Your task to perform on an android device: Open Youtube and go to "Your channel" Image 0: 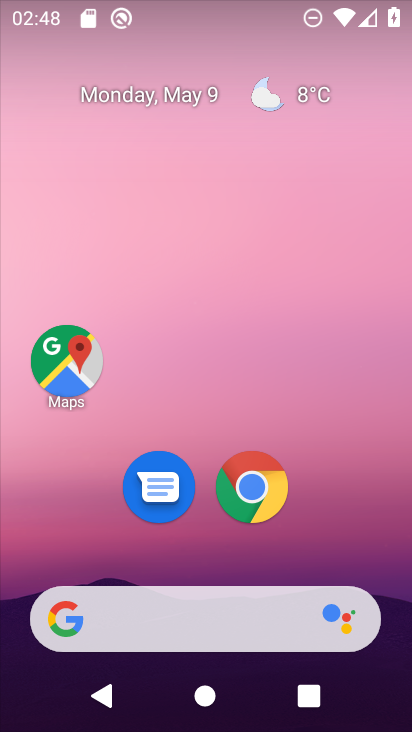
Step 0: drag from (353, 510) to (244, 15)
Your task to perform on an android device: Open Youtube and go to "Your channel" Image 1: 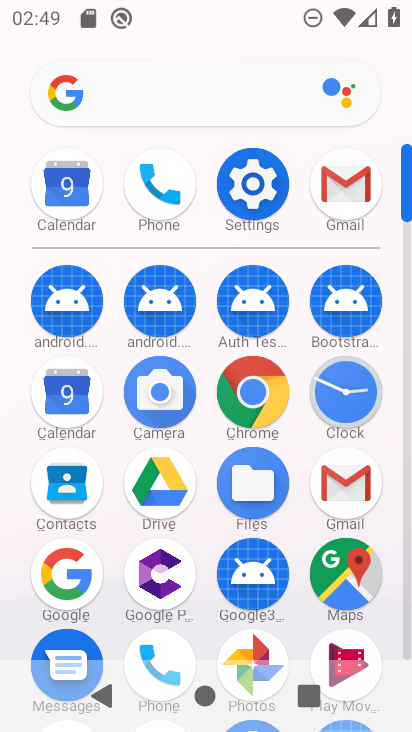
Step 1: drag from (197, 239) to (180, 73)
Your task to perform on an android device: Open Youtube and go to "Your channel" Image 2: 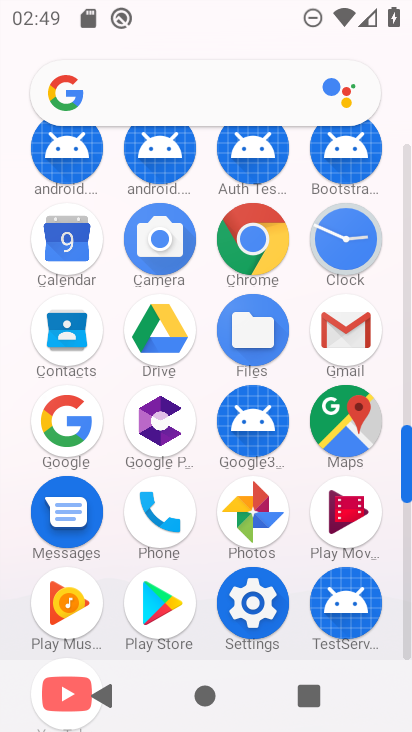
Step 2: click (56, 669)
Your task to perform on an android device: Open Youtube and go to "Your channel" Image 3: 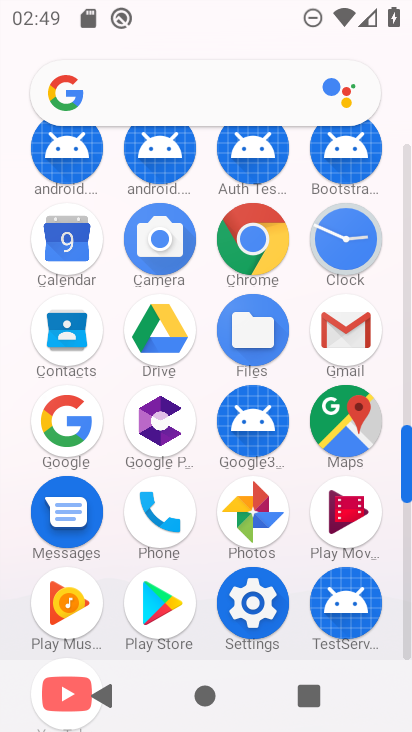
Step 3: click (71, 664)
Your task to perform on an android device: Open Youtube and go to "Your channel" Image 4: 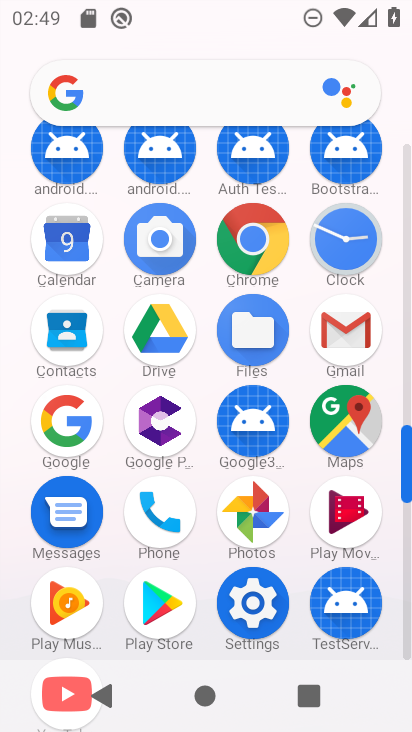
Step 4: drag from (207, 653) to (171, 318)
Your task to perform on an android device: Open Youtube and go to "Your channel" Image 5: 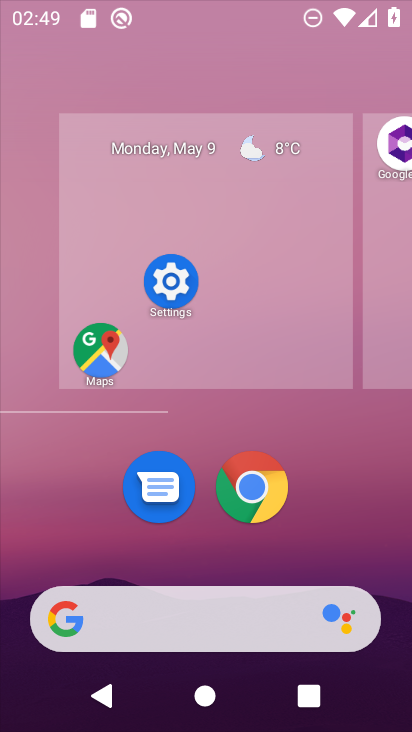
Step 5: click (171, 318)
Your task to perform on an android device: Open Youtube and go to "Your channel" Image 6: 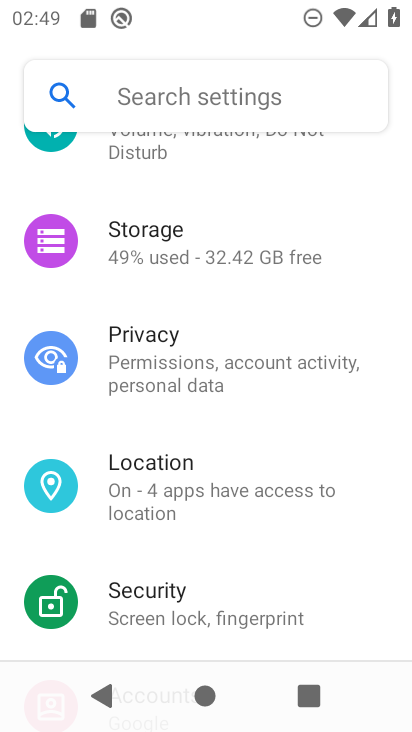
Step 6: drag from (256, 386) to (307, 40)
Your task to perform on an android device: Open Youtube and go to "Your channel" Image 7: 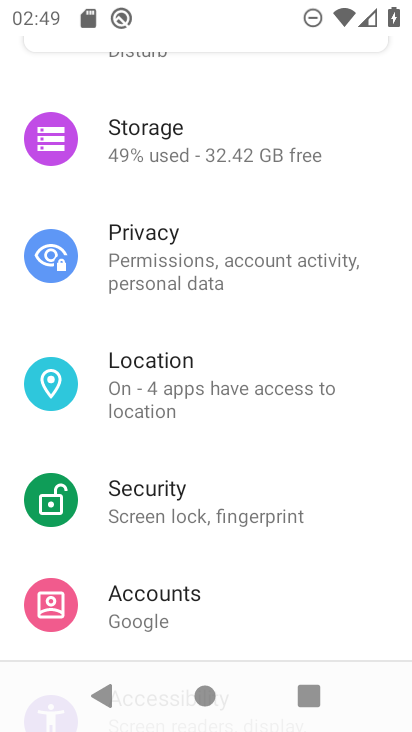
Step 7: press home button
Your task to perform on an android device: Open Youtube and go to "Your channel" Image 8: 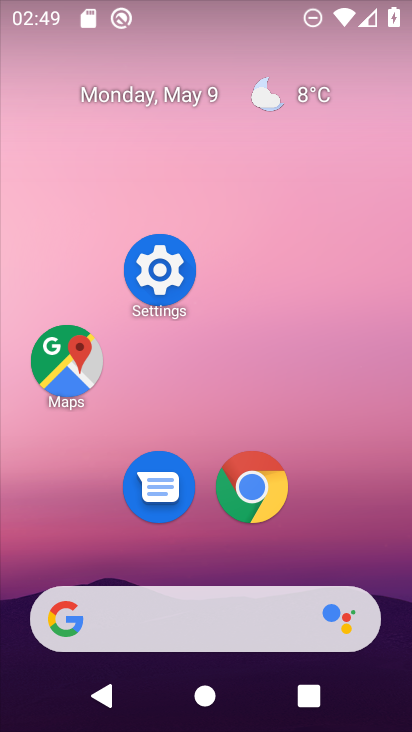
Step 8: drag from (321, 575) to (295, 77)
Your task to perform on an android device: Open Youtube and go to "Your channel" Image 9: 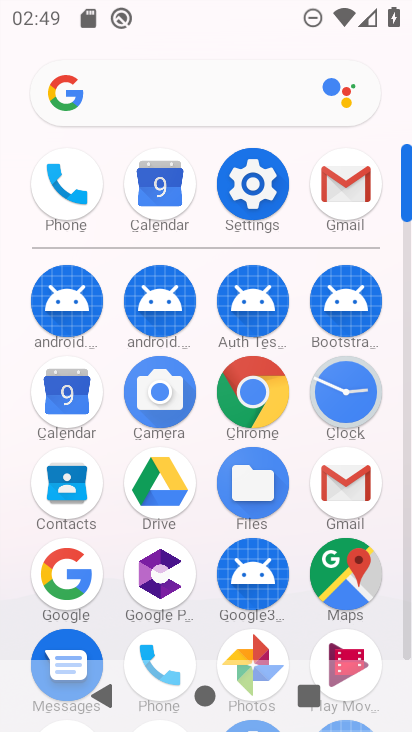
Step 9: drag from (198, 251) to (176, 54)
Your task to perform on an android device: Open Youtube and go to "Your channel" Image 10: 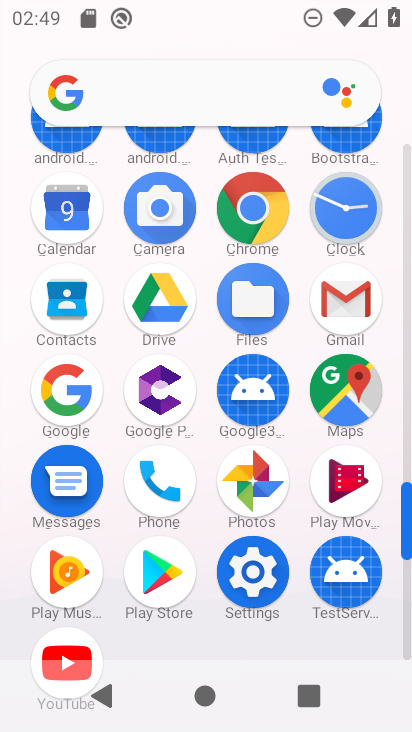
Step 10: click (69, 648)
Your task to perform on an android device: Open Youtube and go to "Your channel" Image 11: 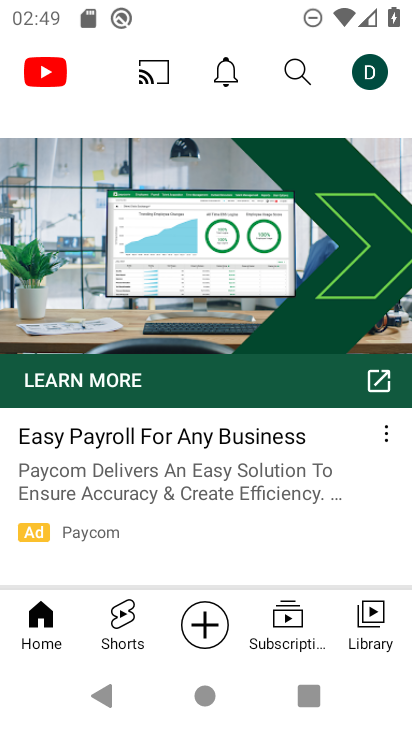
Step 11: click (378, 78)
Your task to perform on an android device: Open Youtube and go to "Your channel" Image 12: 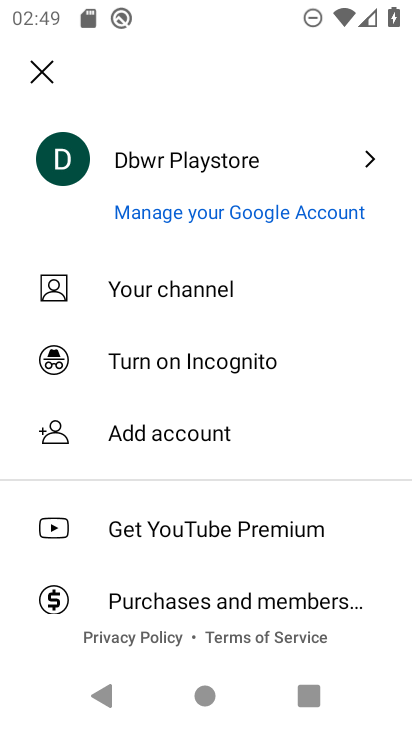
Step 12: click (202, 301)
Your task to perform on an android device: Open Youtube and go to "Your channel" Image 13: 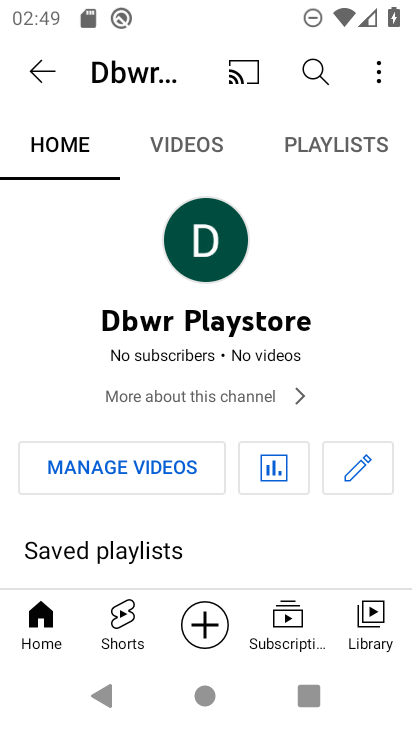
Step 13: task complete